Your task to perform on an android device: Go to Google maps Image 0: 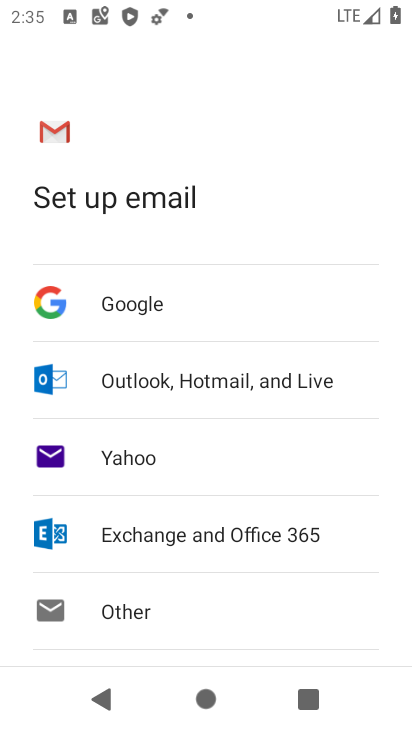
Step 0: press home button
Your task to perform on an android device: Go to Google maps Image 1: 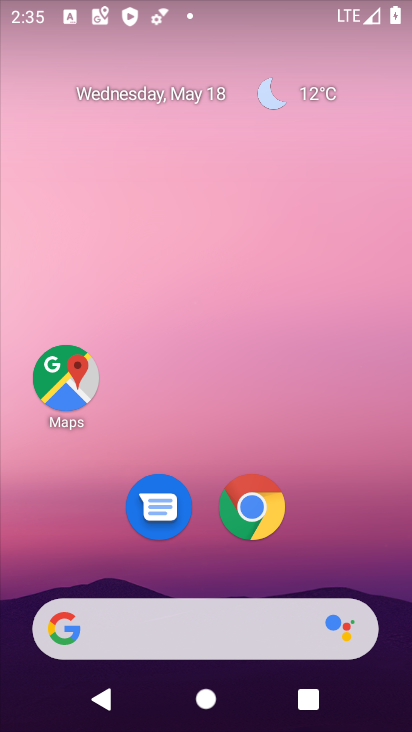
Step 1: click (63, 377)
Your task to perform on an android device: Go to Google maps Image 2: 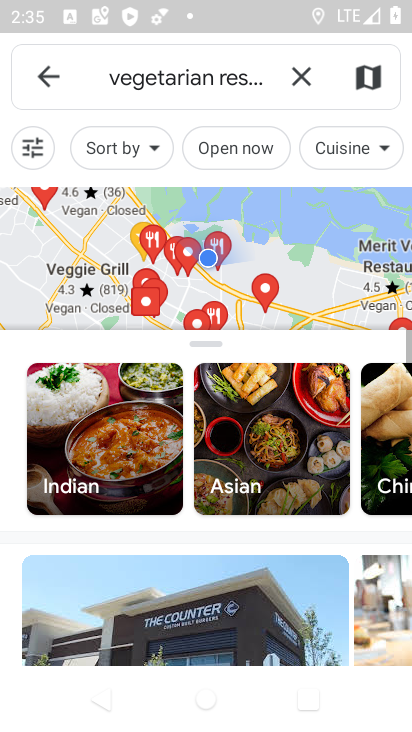
Step 2: click (299, 80)
Your task to perform on an android device: Go to Google maps Image 3: 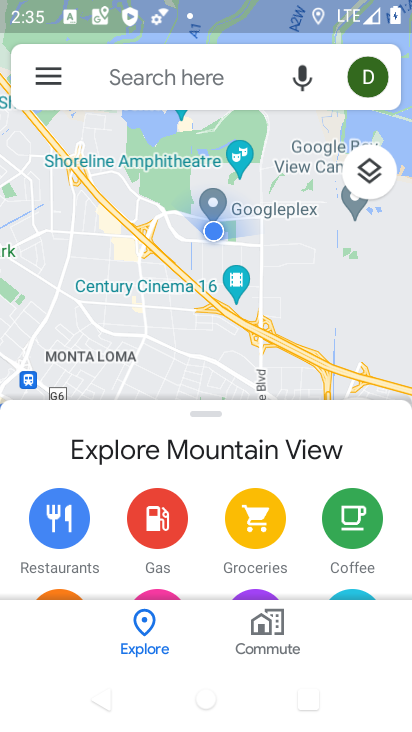
Step 3: task complete